Your task to perform on an android device: turn off notifications in google photos Image 0: 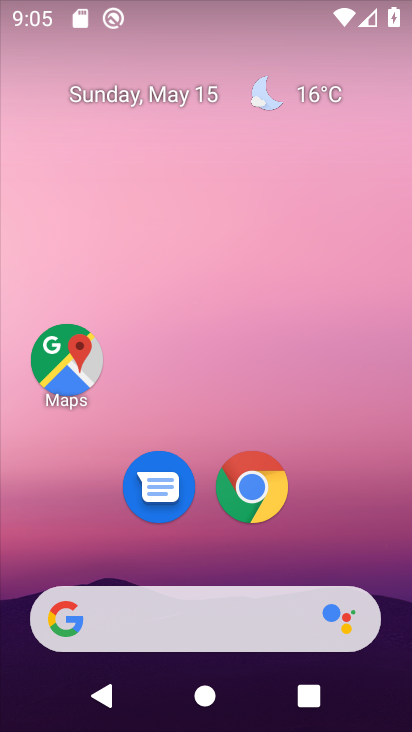
Step 0: drag from (336, 489) to (325, 98)
Your task to perform on an android device: turn off notifications in google photos Image 1: 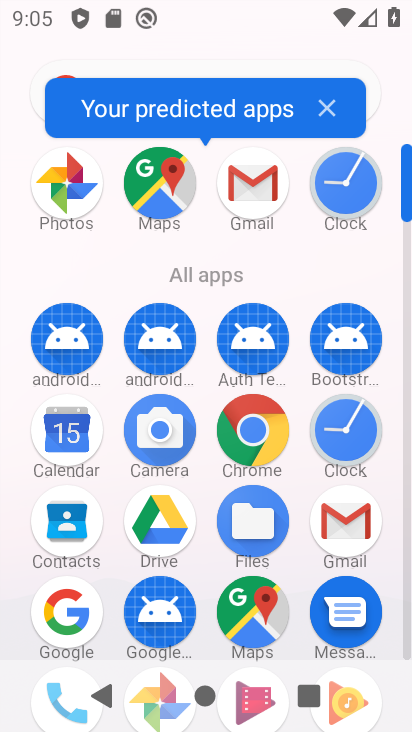
Step 1: drag from (200, 648) to (207, 325)
Your task to perform on an android device: turn off notifications in google photos Image 2: 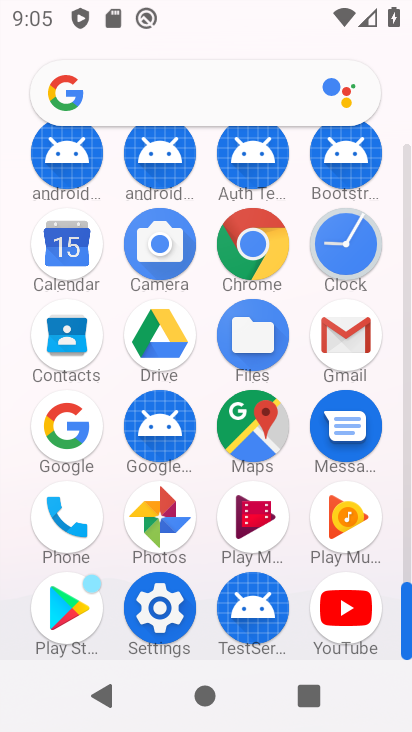
Step 2: click (165, 534)
Your task to perform on an android device: turn off notifications in google photos Image 3: 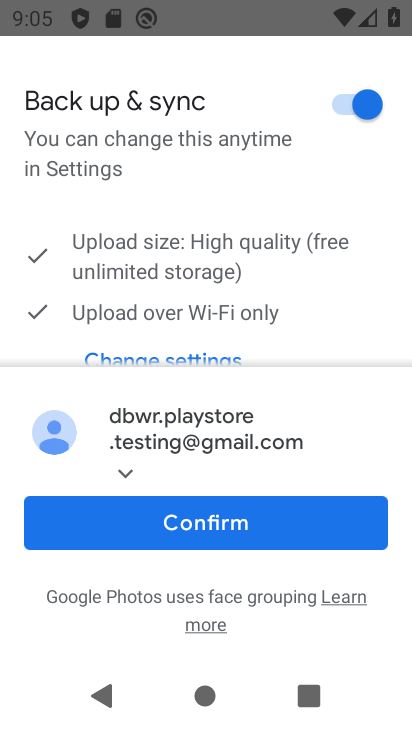
Step 3: click (189, 524)
Your task to perform on an android device: turn off notifications in google photos Image 4: 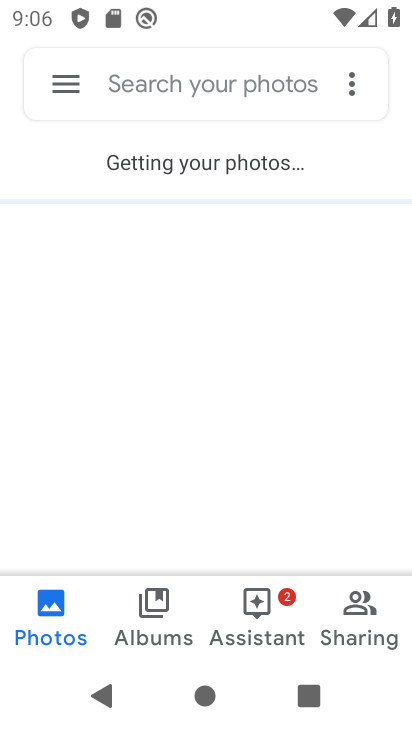
Step 4: click (77, 85)
Your task to perform on an android device: turn off notifications in google photos Image 5: 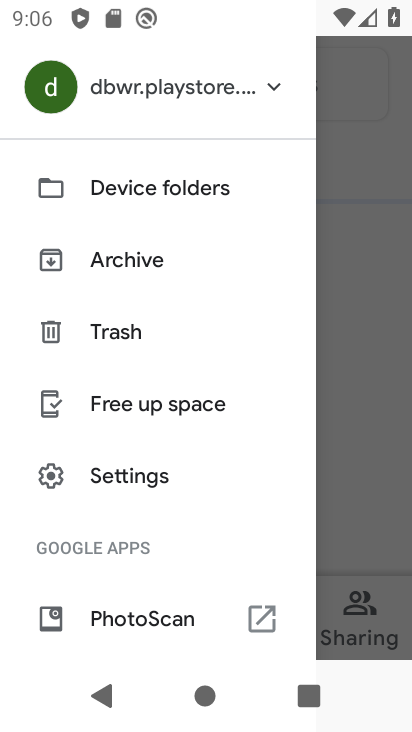
Step 5: click (164, 456)
Your task to perform on an android device: turn off notifications in google photos Image 6: 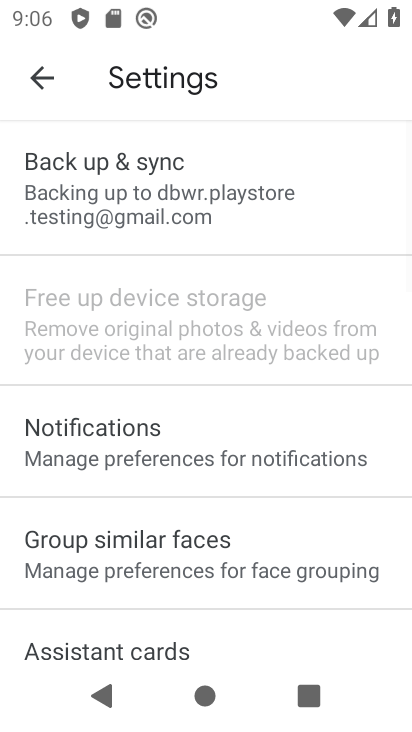
Step 6: click (168, 443)
Your task to perform on an android device: turn off notifications in google photos Image 7: 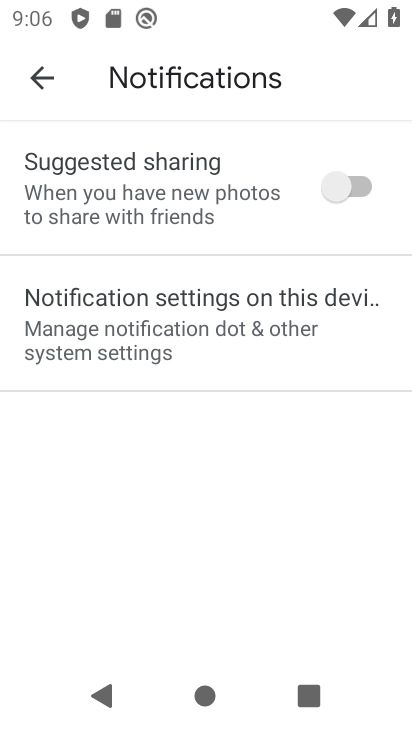
Step 7: click (178, 322)
Your task to perform on an android device: turn off notifications in google photos Image 8: 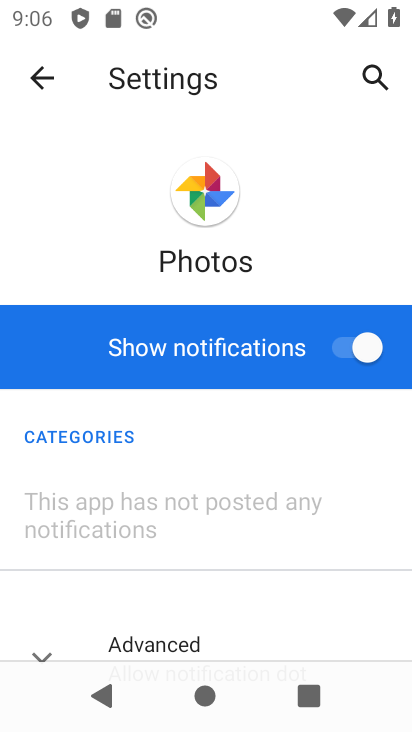
Step 8: drag from (294, 626) to (291, 333)
Your task to perform on an android device: turn off notifications in google photos Image 9: 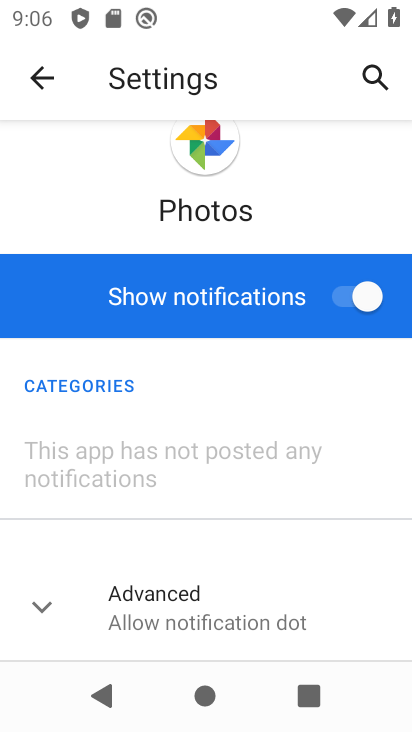
Step 9: click (351, 307)
Your task to perform on an android device: turn off notifications in google photos Image 10: 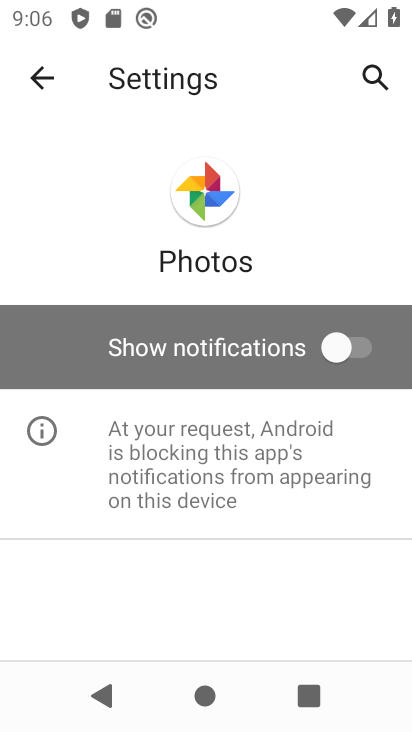
Step 10: task complete